Your task to perform on an android device: Check the news Image 0: 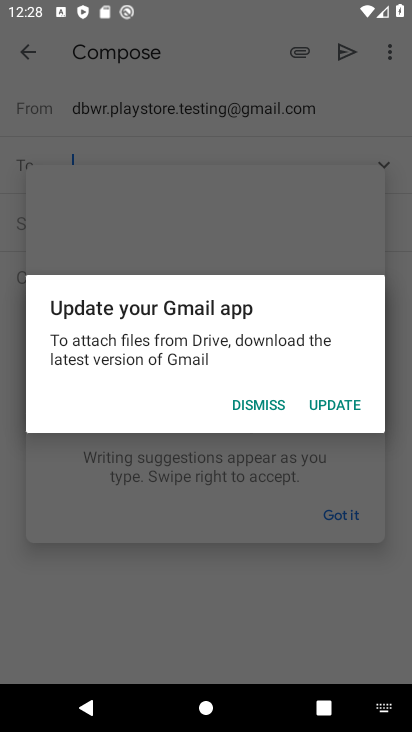
Step 0: press home button
Your task to perform on an android device: Check the news Image 1: 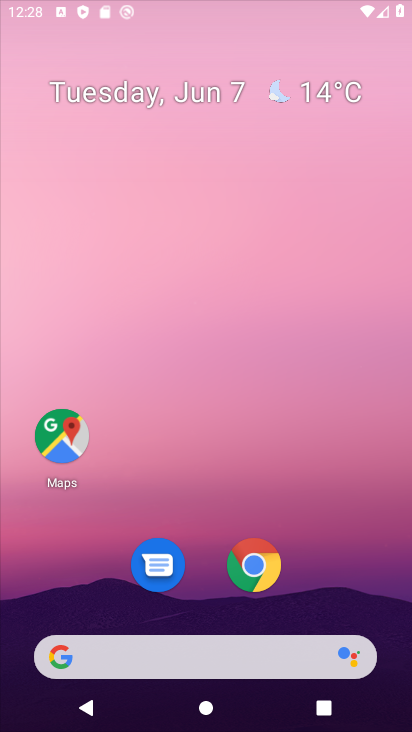
Step 1: drag from (269, 653) to (171, 4)
Your task to perform on an android device: Check the news Image 2: 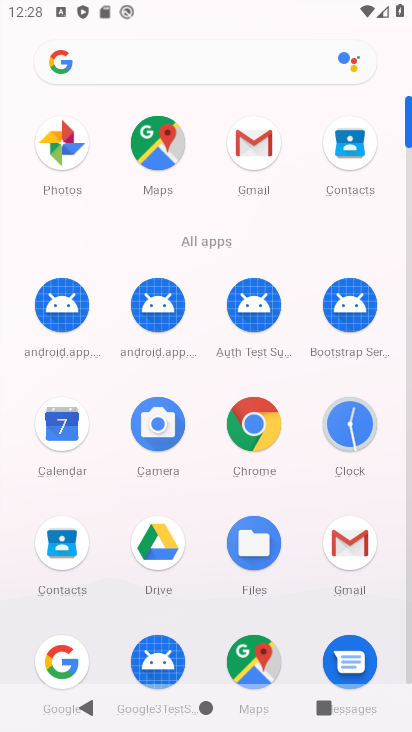
Step 2: click (247, 411)
Your task to perform on an android device: Check the news Image 3: 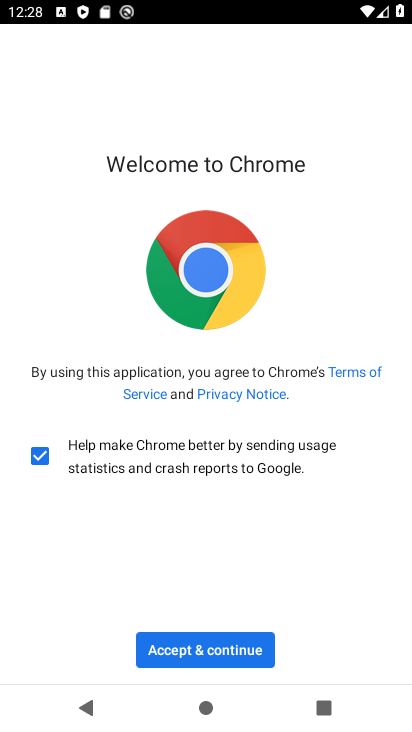
Step 3: click (241, 656)
Your task to perform on an android device: Check the news Image 4: 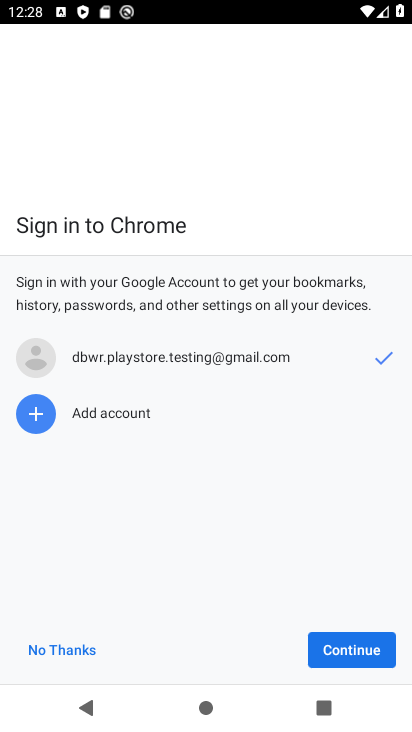
Step 4: click (44, 644)
Your task to perform on an android device: Check the news Image 5: 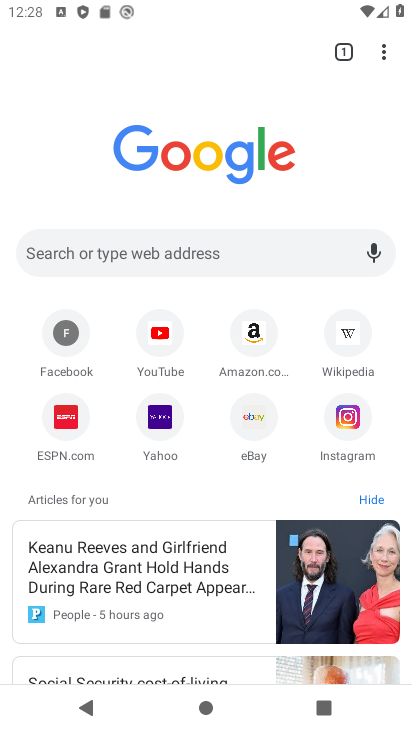
Step 5: click (205, 246)
Your task to perform on an android device: Check the news Image 6: 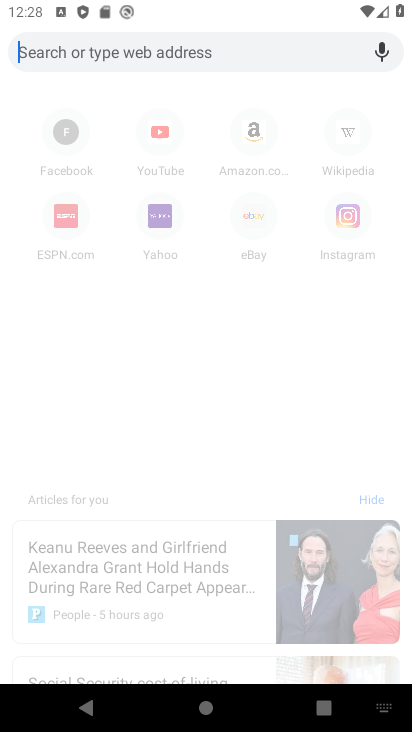
Step 6: type "check the news"
Your task to perform on an android device: Check the news Image 7: 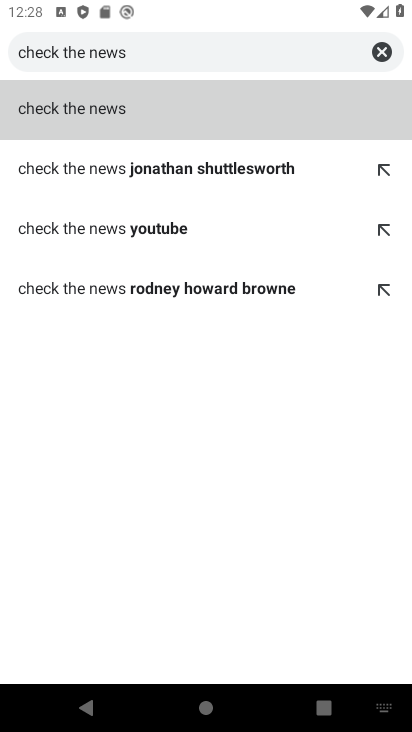
Step 7: click (72, 112)
Your task to perform on an android device: Check the news Image 8: 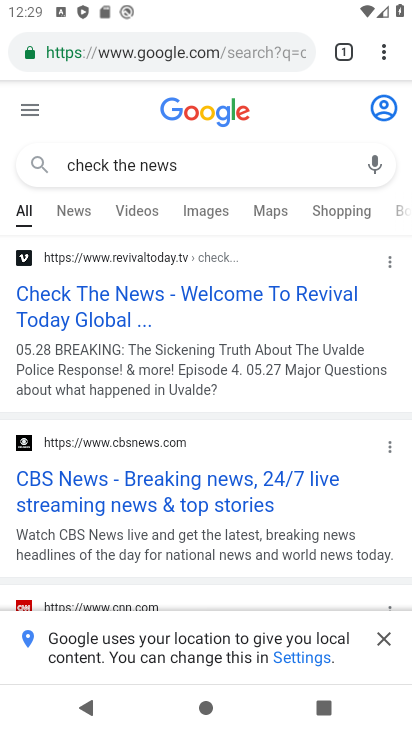
Step 8: task complete